Your task to perform on an android device: Open settings Image 0: 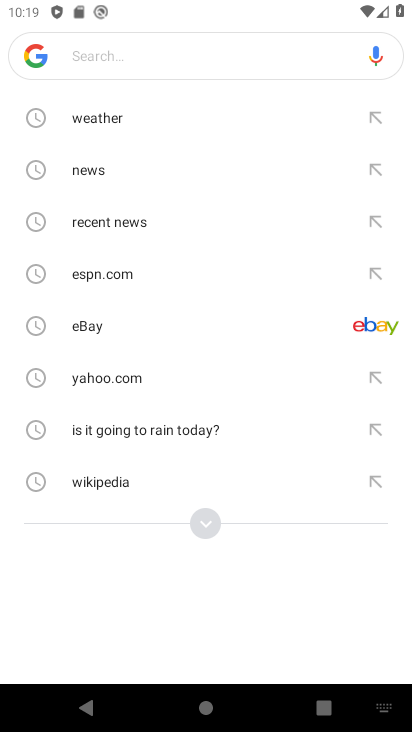
Step 0: press home button
Your task to perform on an android device: Open settings Image 1: 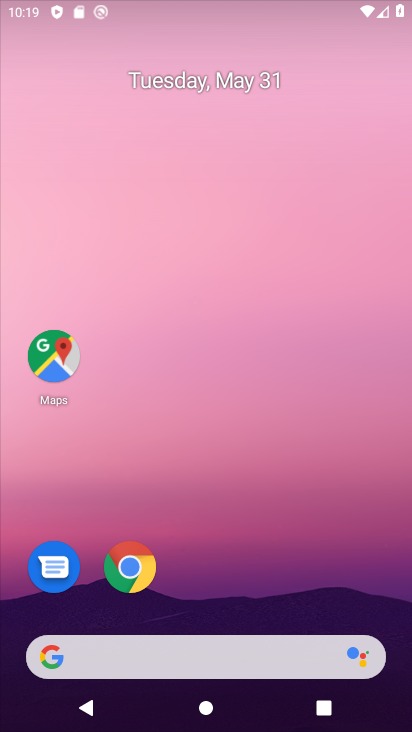
Step 1: drag from (193, 568) to (257, 47)
Your task to perform on an android device: Open settings Image 2: 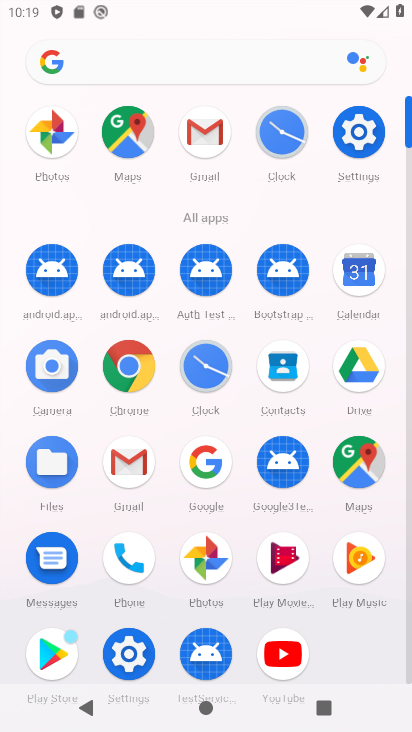
Step 2: click (362, 116)
Your task to perform on an android device: Open settings Image 3: 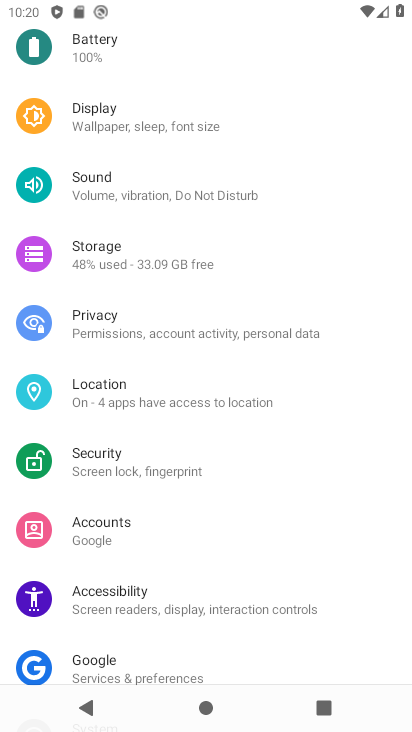
Step 3: task complete